Your task to perform on an android device: open a bookmark in the chrome app Image 0: 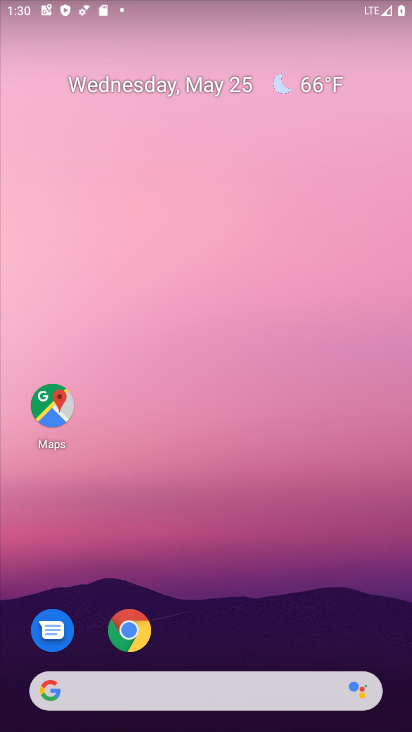
Step 0: press home button
Your task to perform on an android device: open a bookmark in the chrome app Image 1: 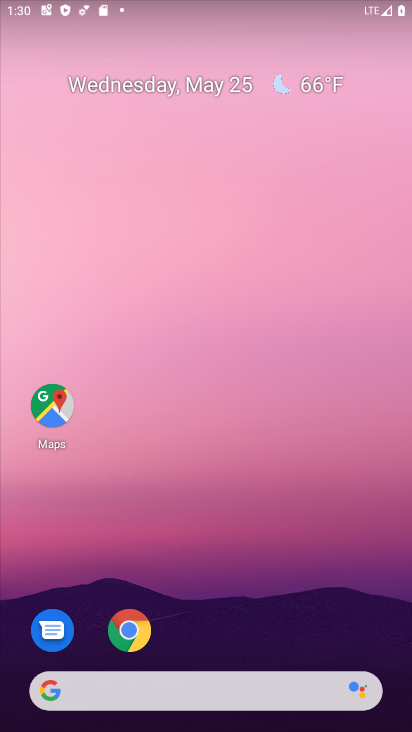
Step 1: click (123, 624)
Your task to perform on an android device: open a bookmark in the chrome app Image 2: 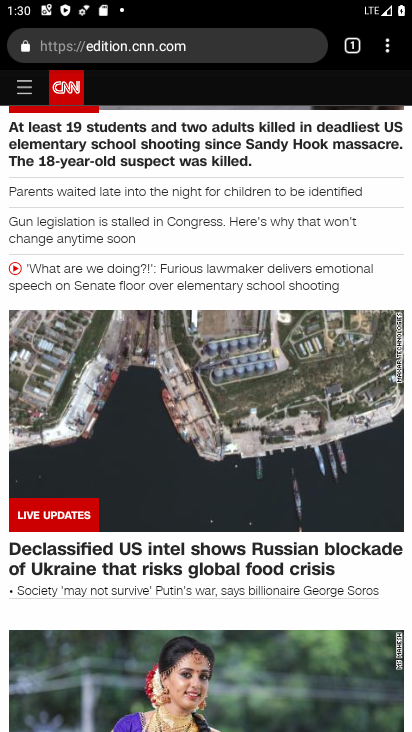
Step 2: click (391, 42)
Your task to perform on an android device: open a bookmark in the chrome app Image 3: 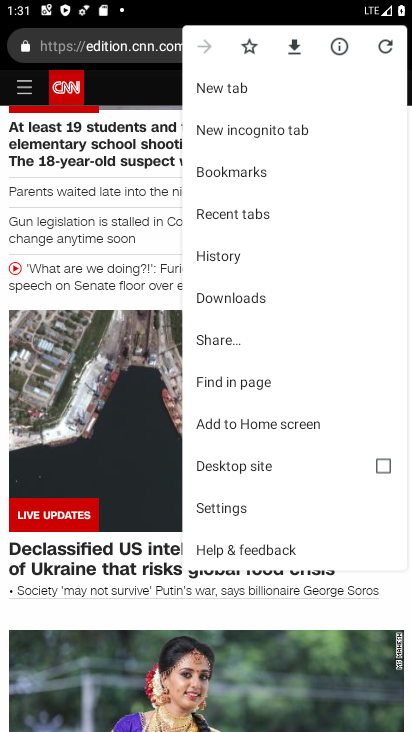
Step 3: click (269, 168)
Your task to perform on an android device: open a bookmark in the chrome app Image 4: 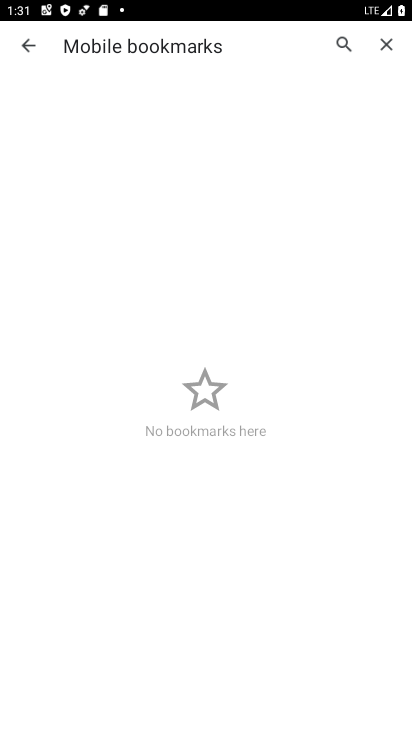
Step 4: task complete